Your task to perform on an android device: find which apps use the phone's location Image 0: 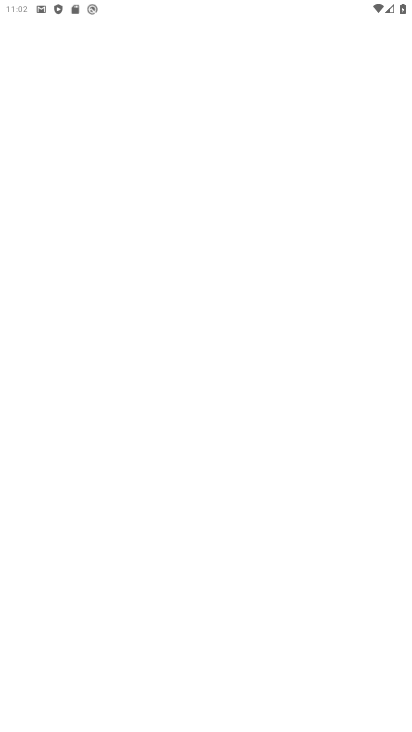
Step 0: press home button
Your task to perform on an android device: find which apps use the phone's location Image 1: 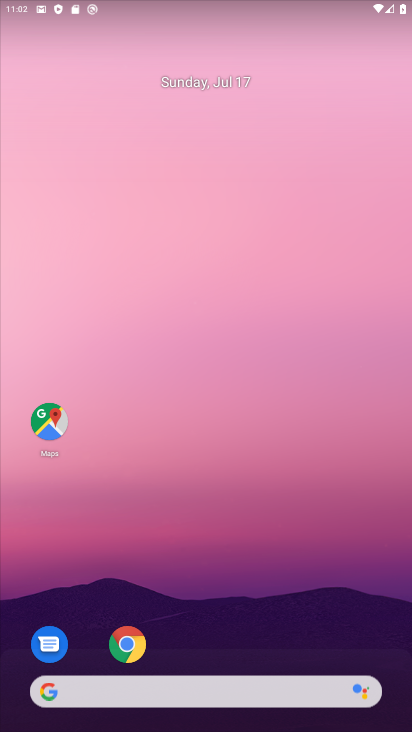
Step 1: drag from (237, 648) to (314, 149)
Your task to perform on an android device: find which apps use the phone's location Image 2: 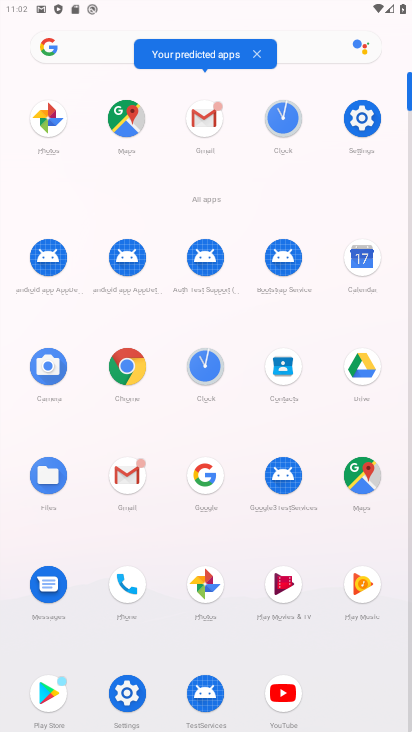
Step 2: click (123, 695)
Your task to perform on an android device: find which apps use the phone's location Image 3: 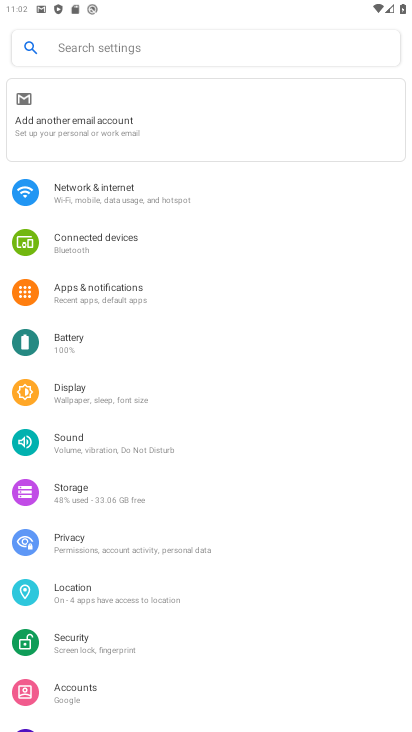
Step 3: click (106, 594)
Your task to perform on an android device: find which apps use the phone's location Image 4: 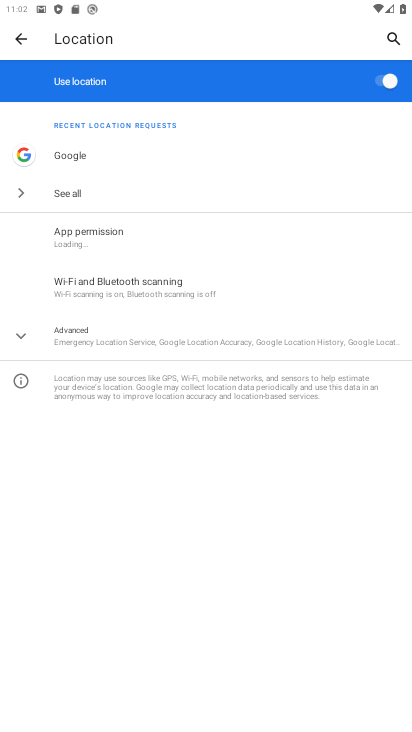
Step 4: click (137, 237)
Your task to perform on an android device: find which apps use the phone's location Image 5: 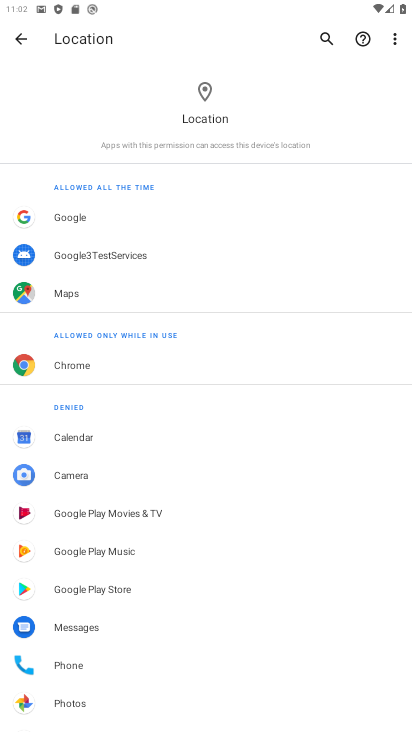
Step 5: task complete